Your task to perform on an android device: toggle javascript in the chrome app Image 0: 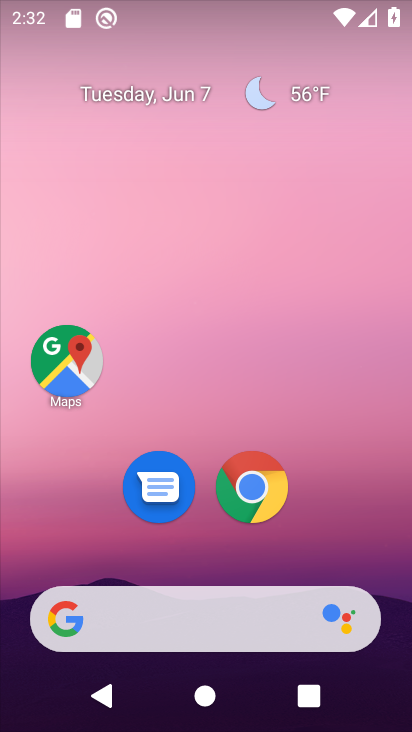
Step 0: click (280, 488)
Your task to perform on an android device: toggle javascript in the chrome app Image 1: 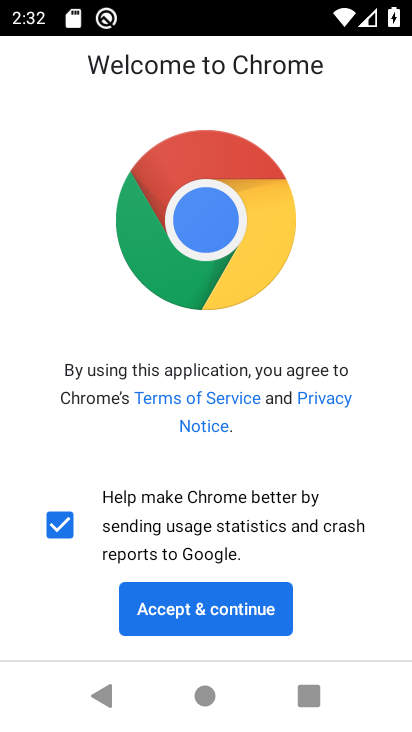
Step 1: click (176, 629)
Your task to perform on an android device: toggle javascript in the chrome app Image 2: 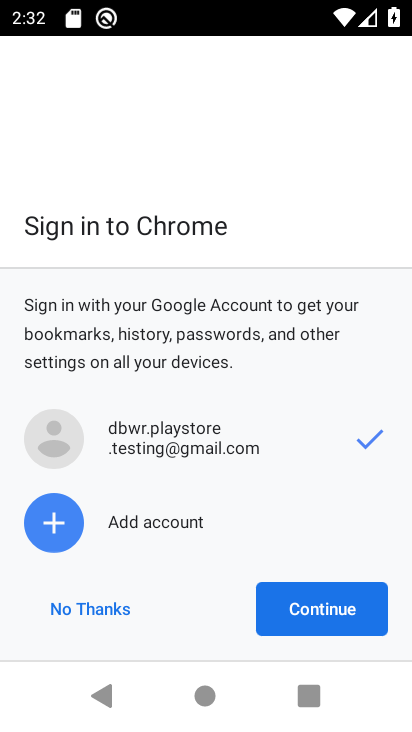
Step 2: click (333, 628)
Your task to perform on an android device: toggle javascript in the chrome app Image 3: 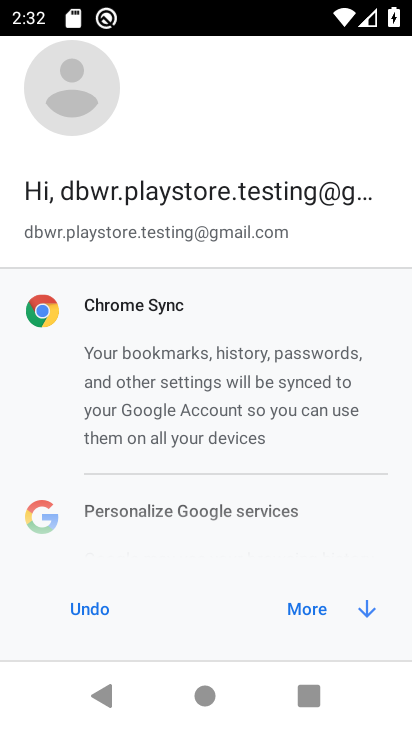
Step 3: click (332, 621)
Your task to perform on an android device: toggle javascript in the chrome app Image 4: 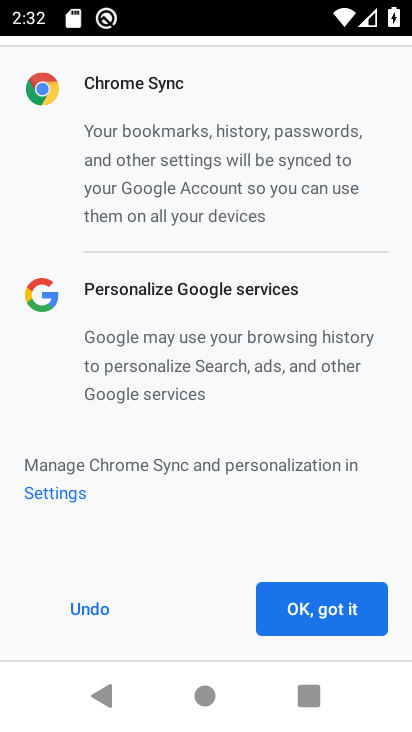
Step 4: click (332, 612)
Your task to perform on an android device: toggle javascript in the chrome app Image 5: 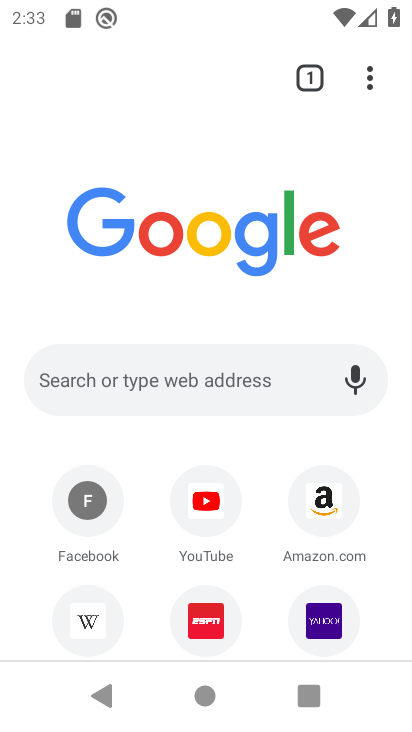
Step 5: click (372, 99)
Your task to perform on an android device: toggle javascript in the chrome app Image 6: 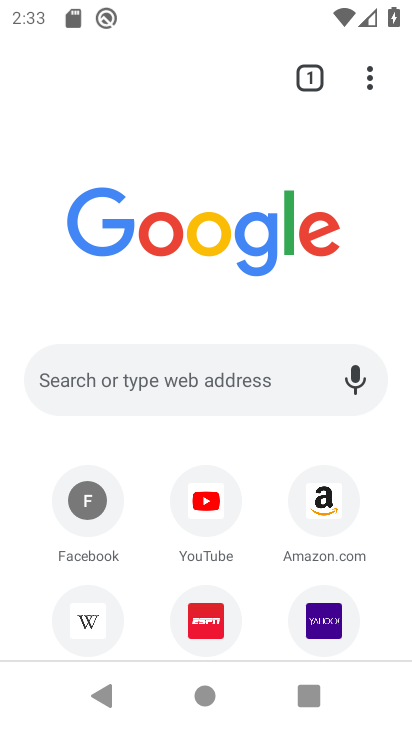
Step 6: click (372, 96)
Your task to perform on an android device: toggle javascript in the chrome app Image 7: 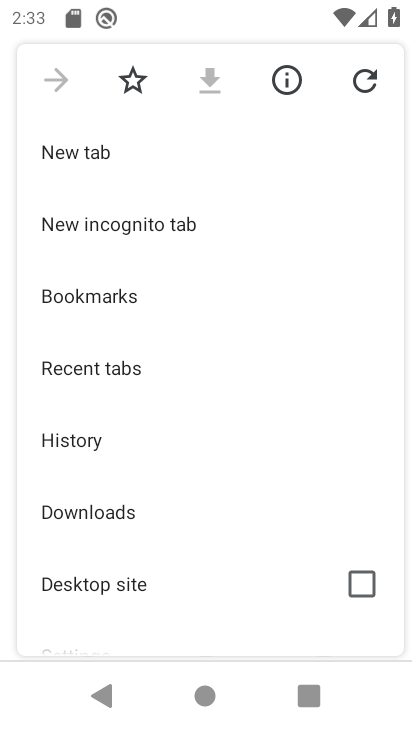
Step 7: drag from (140, 633) to (121, 158)
Your task to perform on an android device: toggle javascript in the chrome app Image 8: 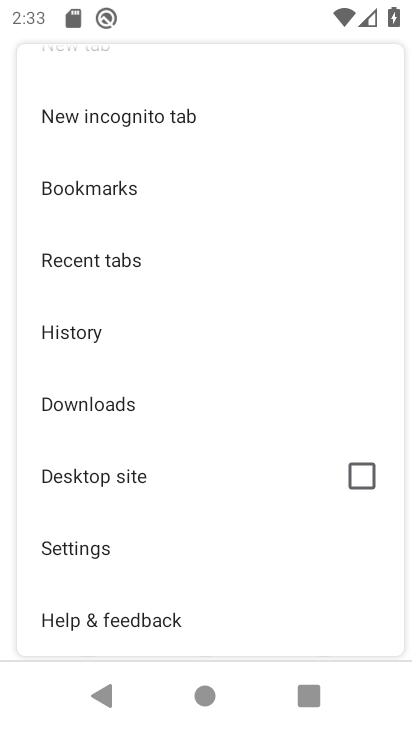
Step 8: click (152, 555)
Your task to perform on an android device: toggle javascript in the chrome app Image 9: 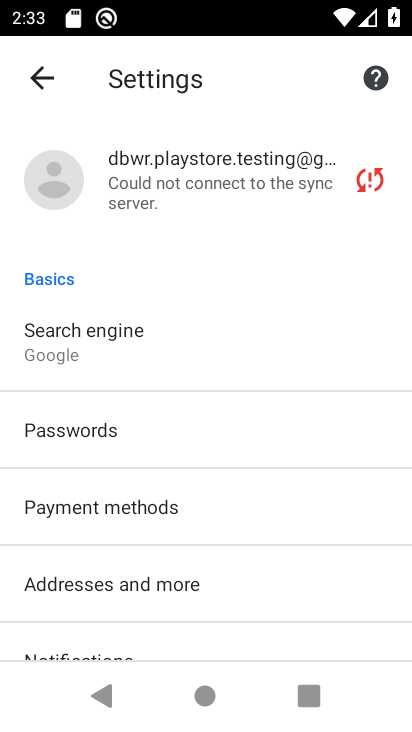
Step 9: drag from (203, 642) to (186, 147)
Your task to perform on an android device: toggle javascript in the chrome app Image 10: 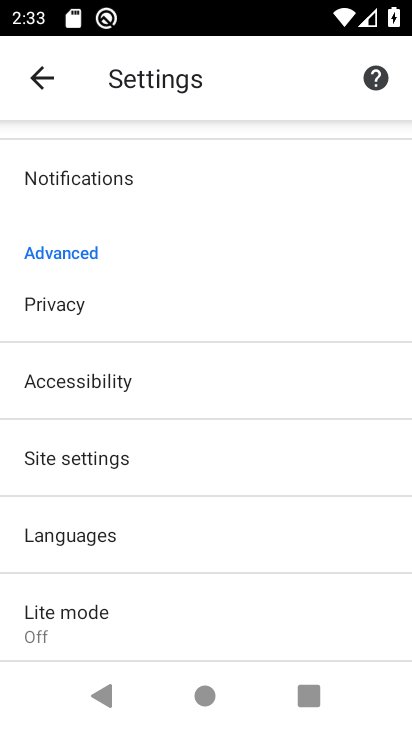
Step 10: click (186, 470)
Your task to perform on an android device: toggle javascript in the chrome app Image 11: 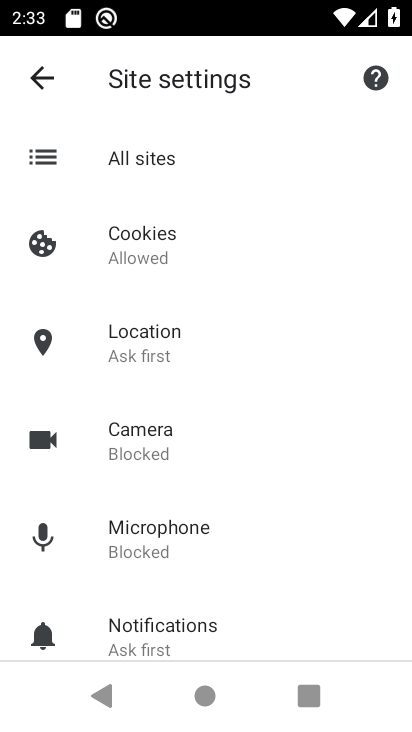
Step 11: drag from (210, 590) to (172, 169)
Your task to perform on an android device: toggle javascript in the chrome app Image 12: 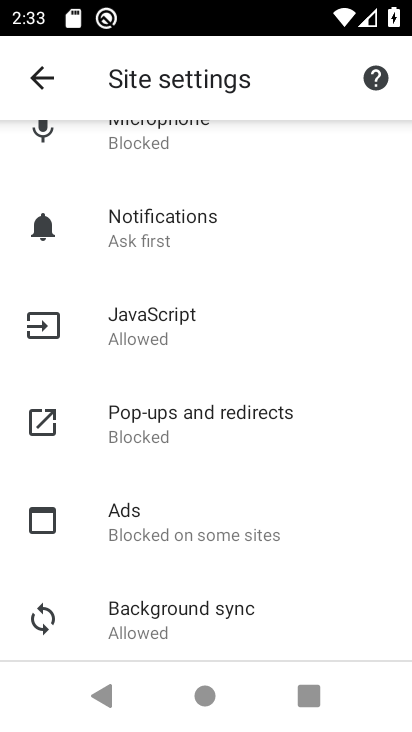
Step 12: click (195, 341)
Your task to perform on an android device: toggle javascript in the chrome app Image 13: 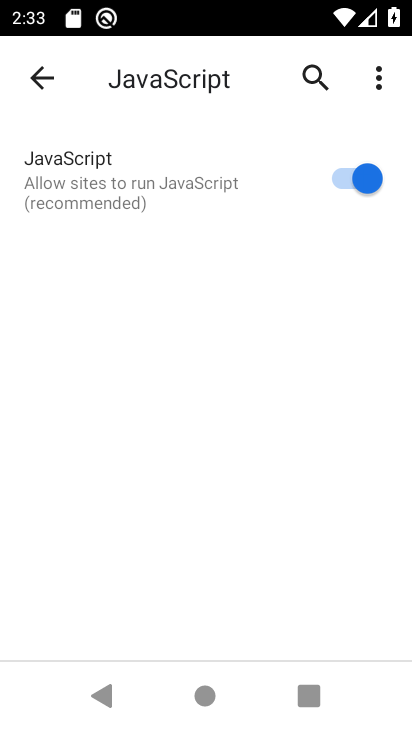
Step 13: click (368, 174)
Your task to perform on an android device: toggle javascript in the chrome app Image 14: 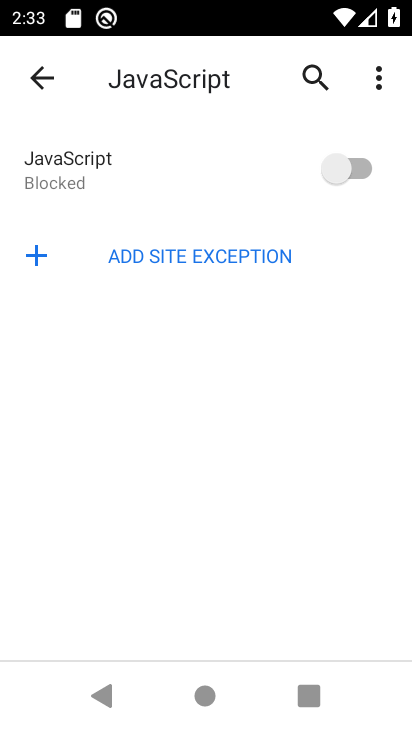
Step 14: task complete